Your task to perform on an android device: Open Google Maps and go to "Timeline" Image 0: 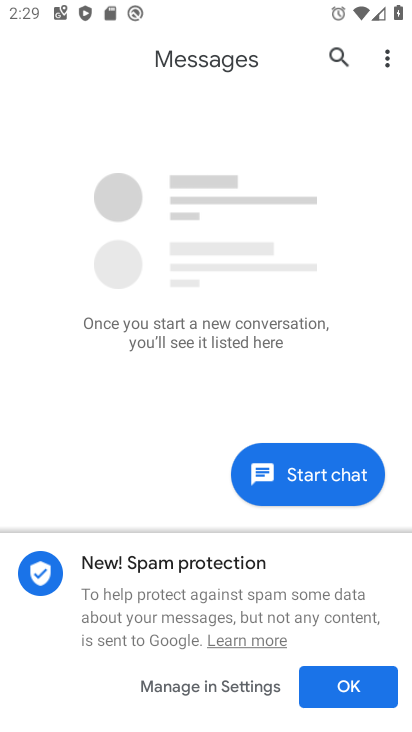
Step 0: press home button
Your task to perform on an android device: Open Google Maps and go to "Timeline" Image 1: 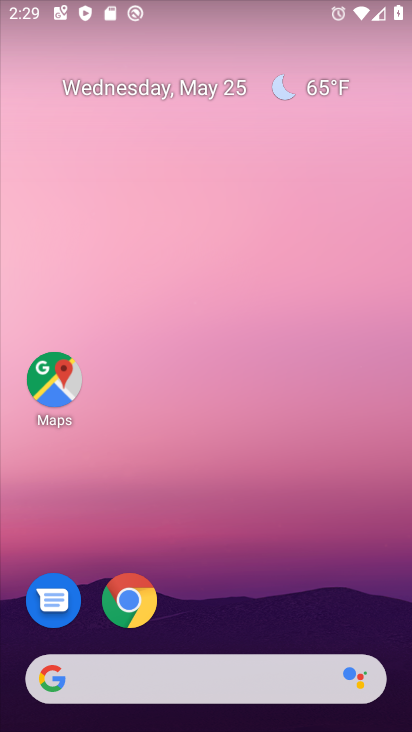
Step 1: drag from (266, 561) to (212, 82)
Your task to perform on an android device: Open Google Maps and go to "Timeline" Image 2: 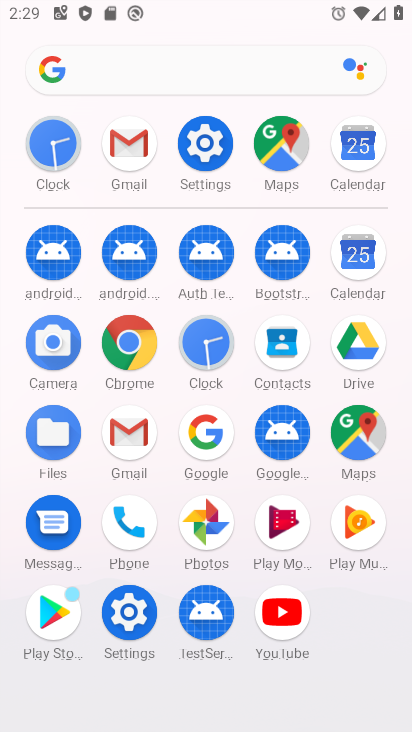
Step 2: click (367, 424)
Your task to perform on an android device: Open Google Maps and go to "Timeline" Image 3: 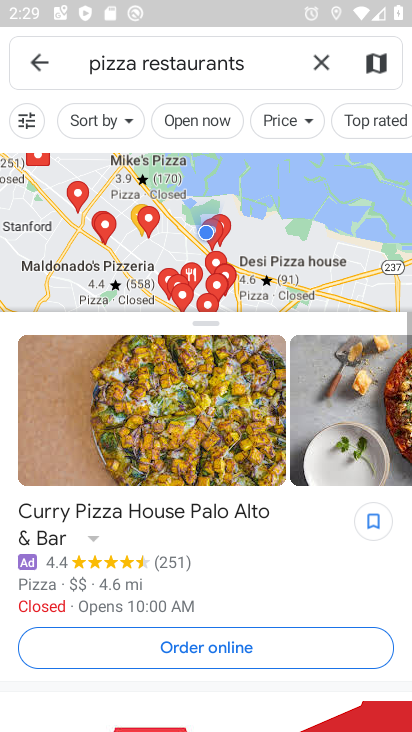
Step 3: click (34, 73)
Your task to perform on an android device: Open Google Maps and go to "Timeline" Image 4: 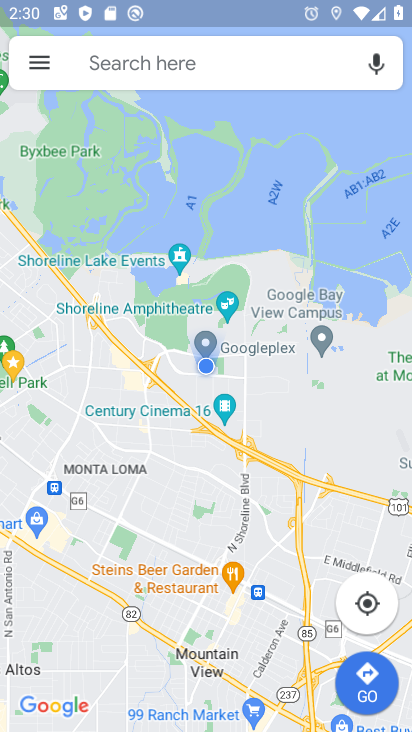
Step 4: click (24, 69)
Your task to perform on an android device: Open Google Maps and go to "Timeline" Image 5: 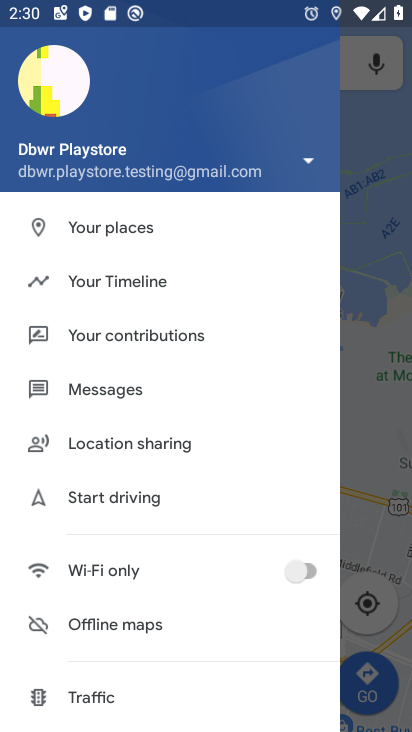
Step 5: click (127, 286)
Your task to perform on an android device: Open Google Maps and go to "Timeline" Image 6: 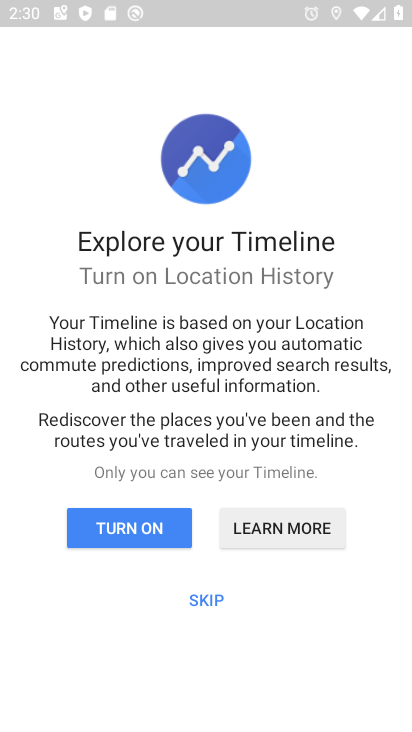
Step 6: click (88, 514)
Your task to perform on an android device: Open Google Maps and go to "Timeline" Image 7: 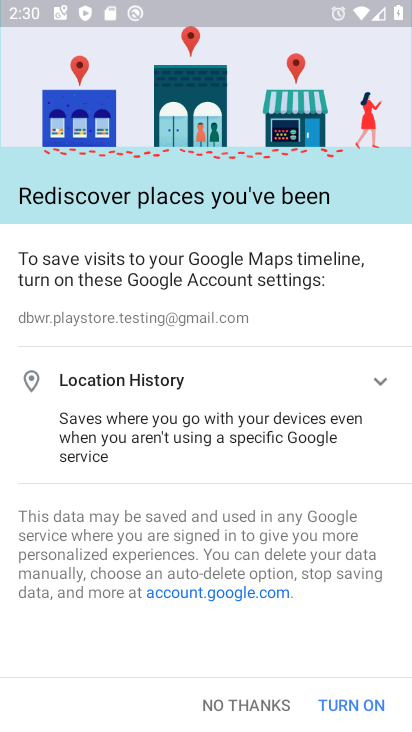
Step 7: click (385, 715)
Your task to perform on an android device: Open Google Maps and go to "Timeline" Image 8: 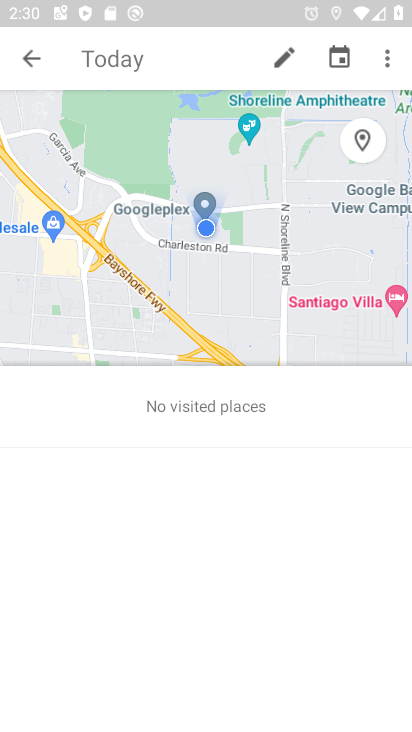
Step 8: task complete